Your task to perform on an android device: Open Chrome and go to the settings page Image 0: 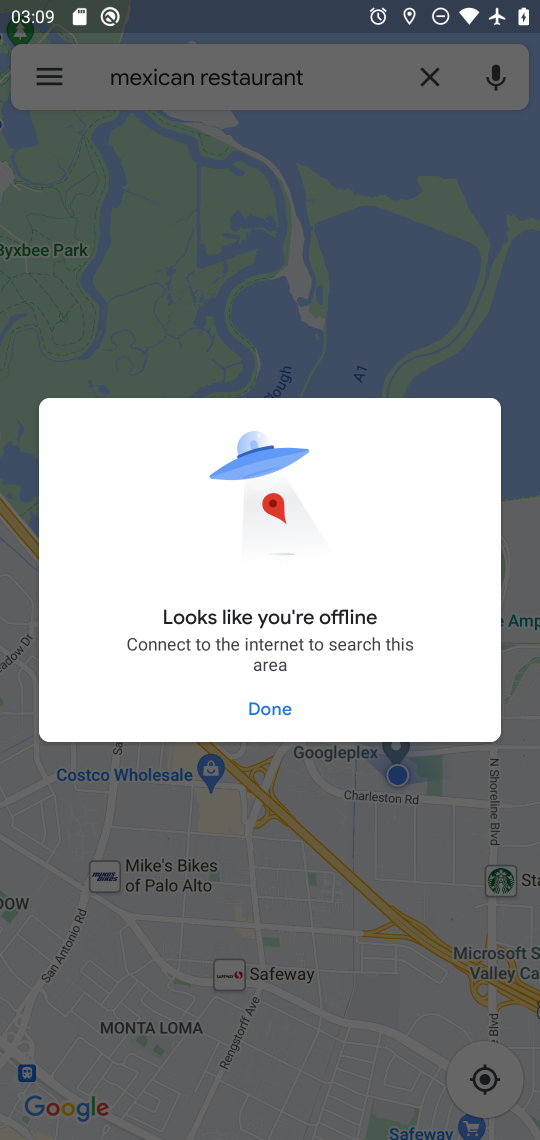
Step 0: press home button
Your task to perform on an android device: Open Chrome and go to the settings page Image 1: 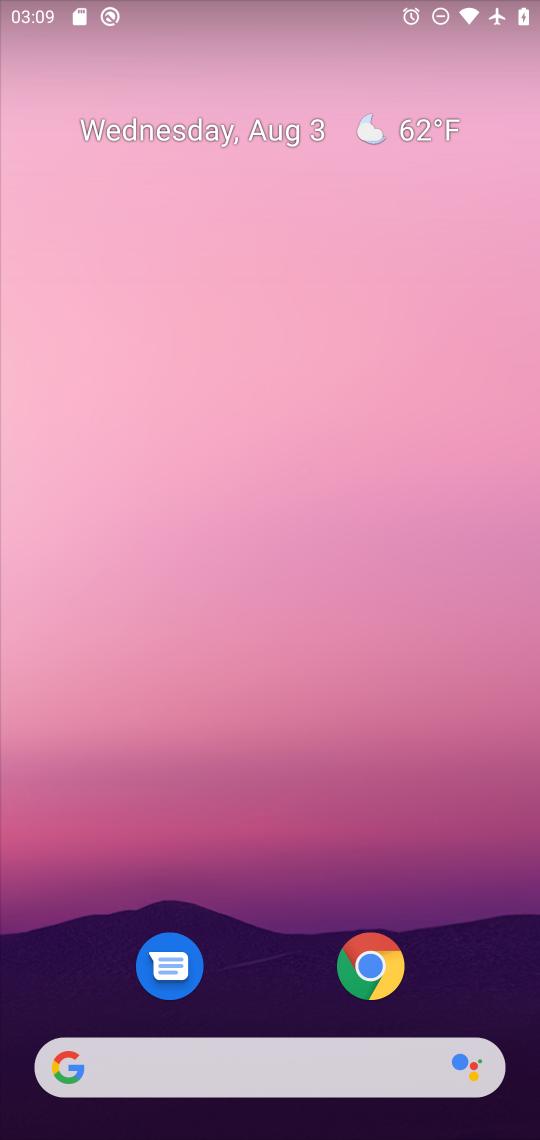
Step 1: click (359, 939)
Your task to perform on an android device: Open Chrome and go to the settings page Image 2: 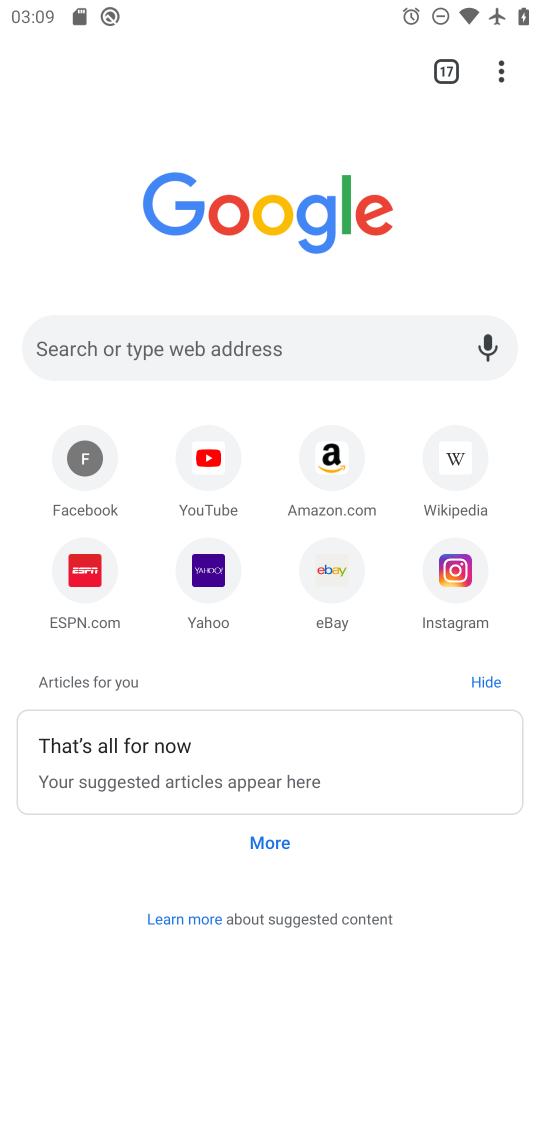
Step 2: click (496, 60)
Your task to perform on an android device: Open Chrome and go to the settings page Image 3: 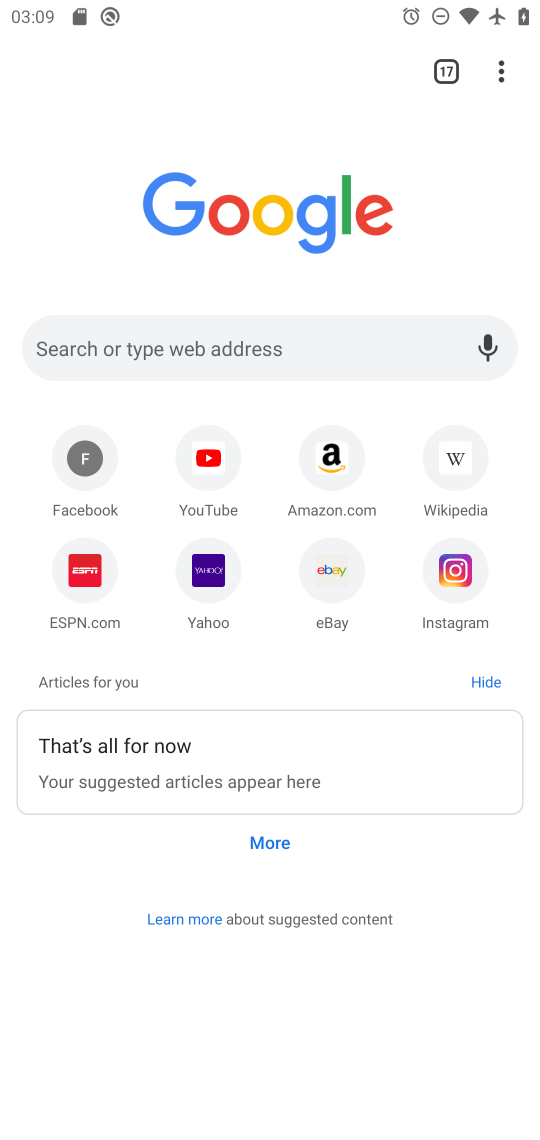
Step 3: task complete